Your task to perform on an android device: Open calendar and show me the second week of next month Image 0: 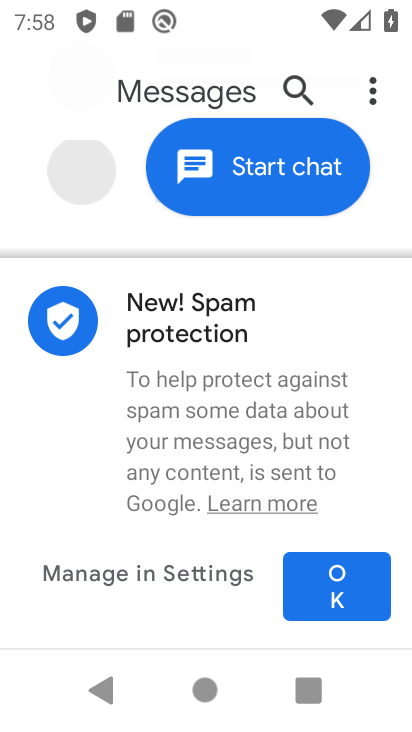
Step 0: press home button
Your task to perform on an android device: Open calendar and show me the second week of next month Image 1: 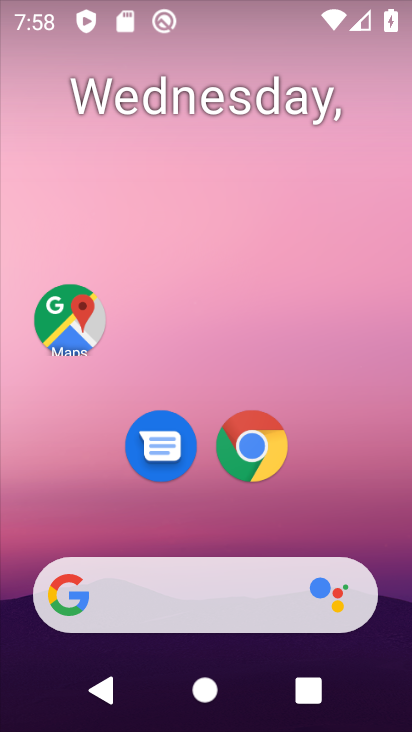
Step 1: drag from (363, 444) to (360, 69)
Your task to perform on an android device: Open calendar and show me the second week of next month Image 2: 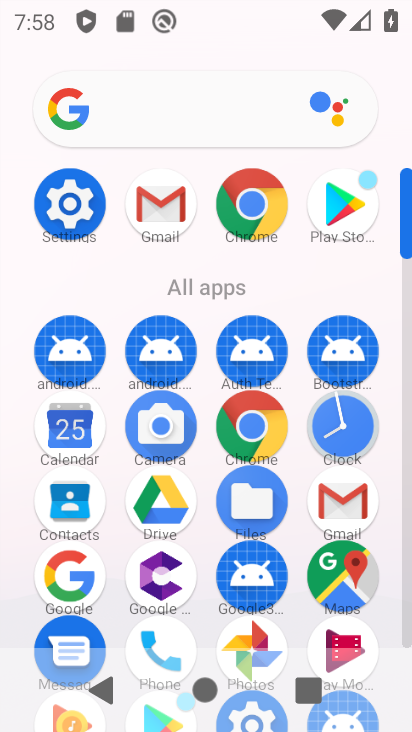
Step 2: click (65, 429)
Your task to perform on an android device: Open calendar and show me the second week of next month Image 3: 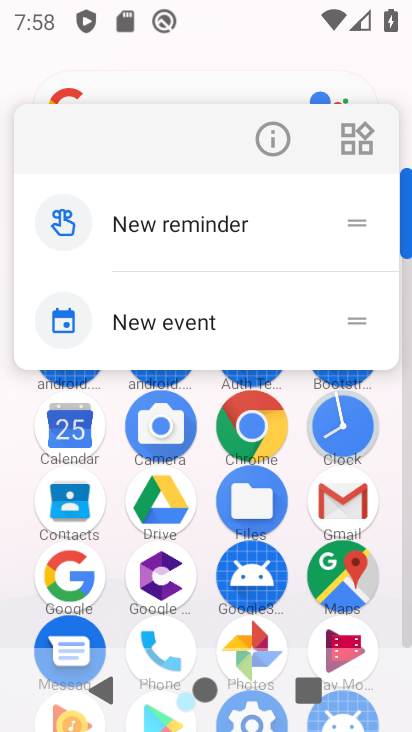
Step 3: click (65, 432)
Your task to perform on an android device: Open calendar and show me the second week of next month Image 4: 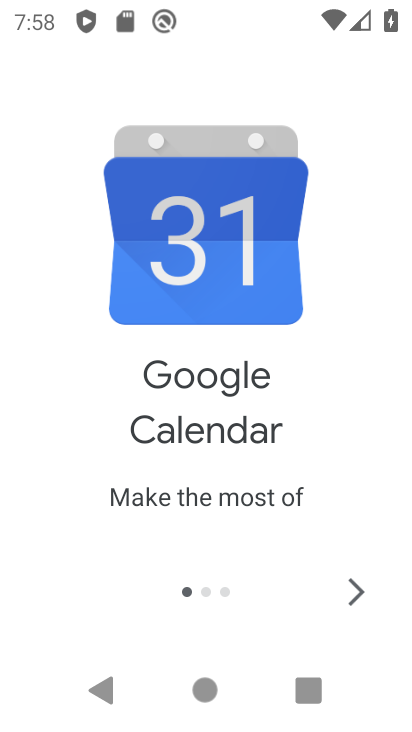
Step 4: click (335, 603)
Your task to perform on an android device: Open calendar and show me the second week of next month Image 5: 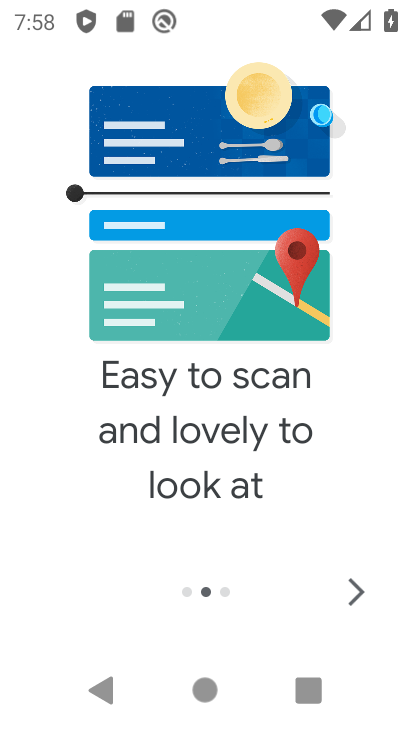
Step 5: click (360, 591)
Your task to perform on an android device: Open calendar and show me the second week of next month Image 6: 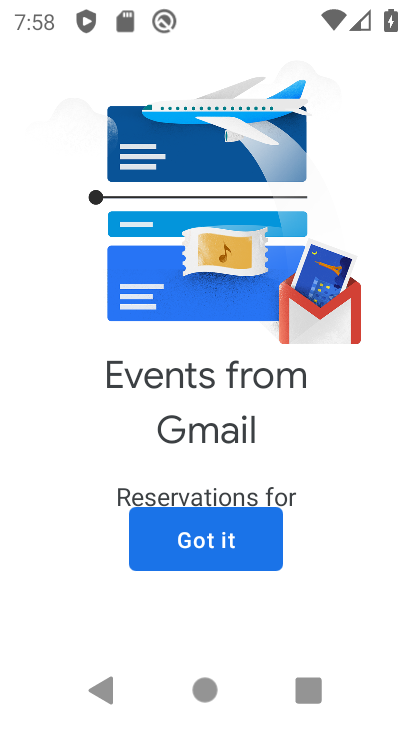
Step 6: click (240, 533)
Your task to perform on an android device: Open calendar and show me the second week of next month Image 7: 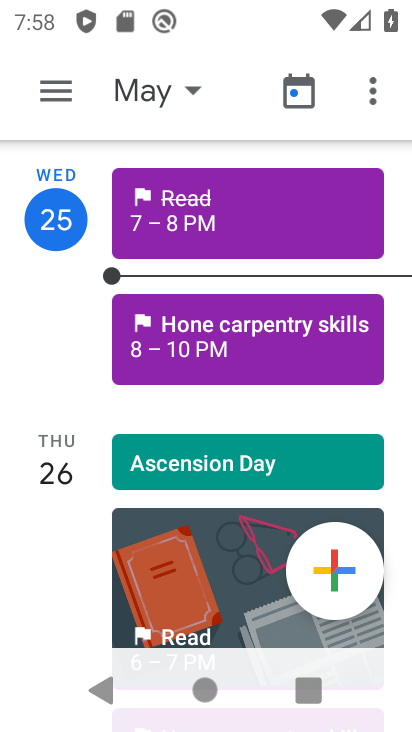
Step 7: click (161, 79)
Your task to perform on an android device: Open calendar and show me the second week of next month Image 8: 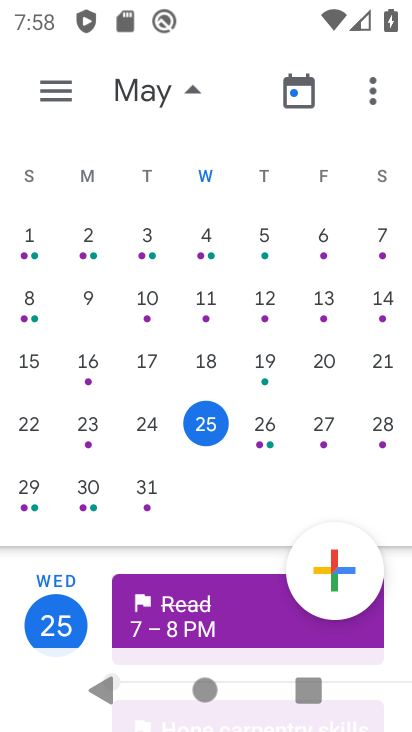
Step 8: drag from (375, 353) to (23, 332)
Your task to perform on an android device: Open calendar and show me the second week of next month Image 9: 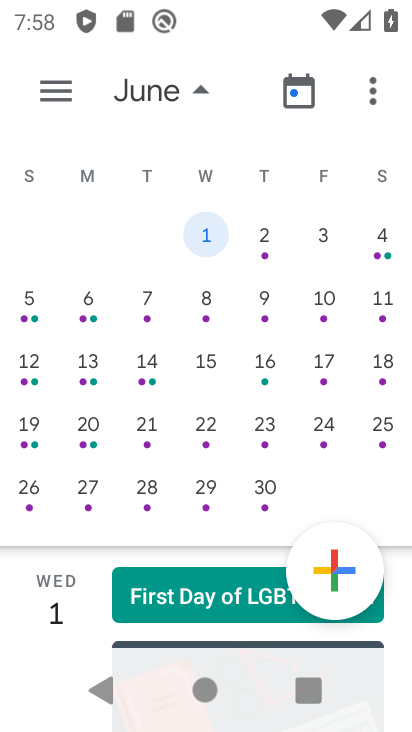
Step 9: click (138, 369)
Your task to perform on an android device: Open calendar and show me the second week of next month Image 10: 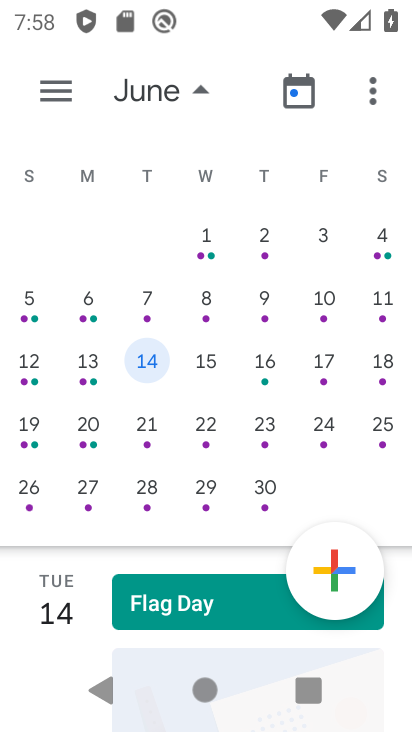
Step 10: task complete